Your task to perform on an android device: Open CNN.com Image 0: 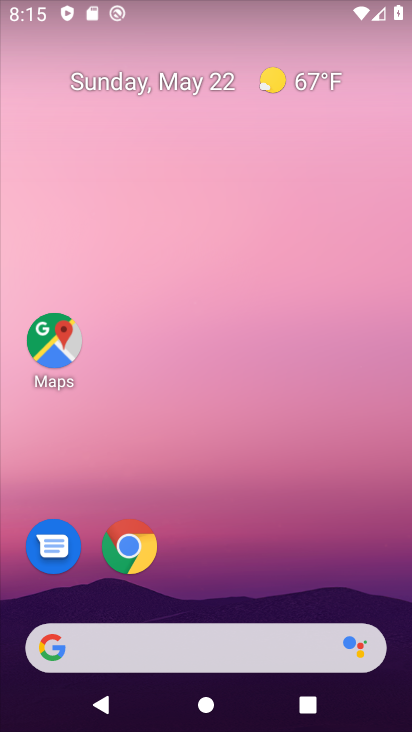
Step 0: click (136, 545)
Your task to perform on an android device: Open CNN.com Image 1: 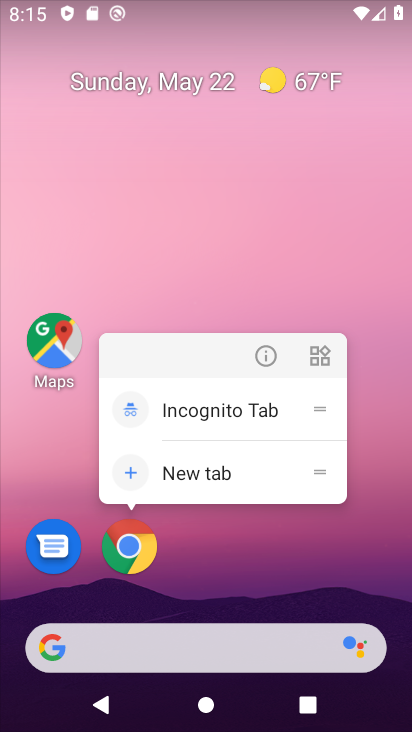
Step 1: click (137, 545)
Your task to perform on an android device: Open CNN.com Image 2: 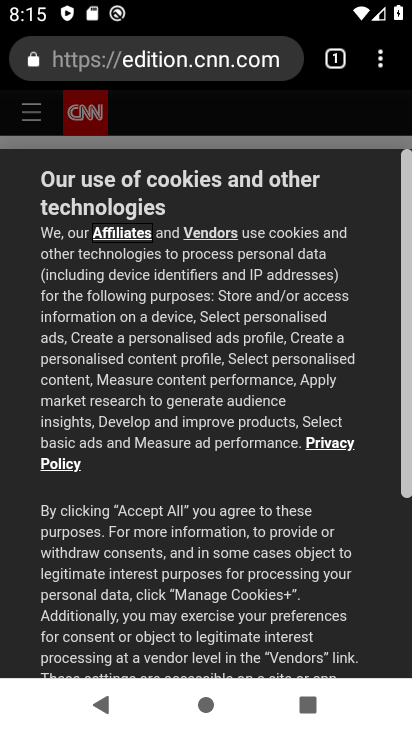
Step 2: click (139, 55)
Your task to perform on an android device: Open CNN.com Image 3: 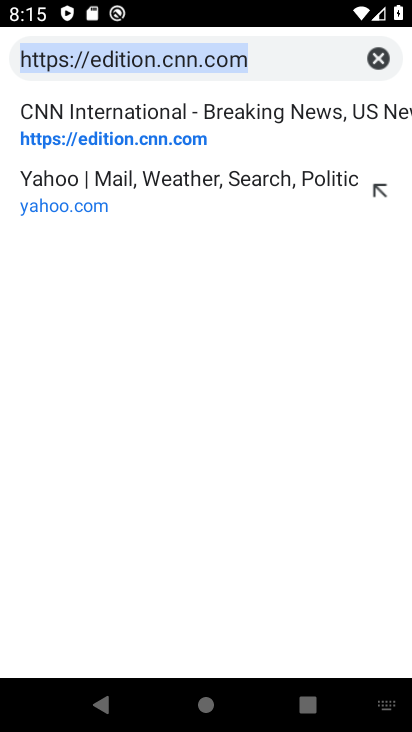
Step 3: type "CNN.com"
Your task to perform on an android device: Open CNN.com Image 4: 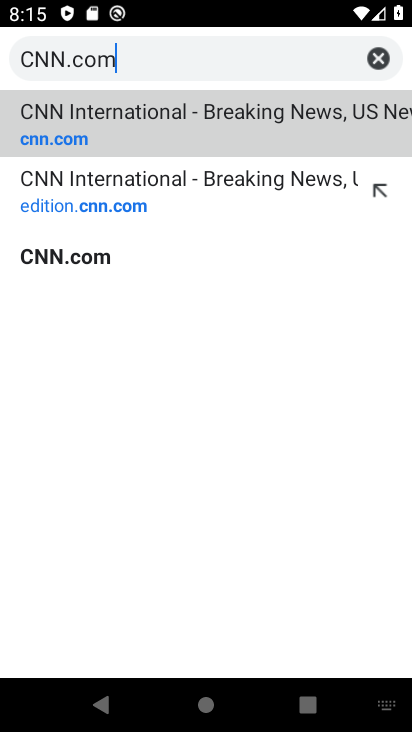
Step 4: click (82, 253)
Your task to perform on an android device: Open CNN.com Image 5: 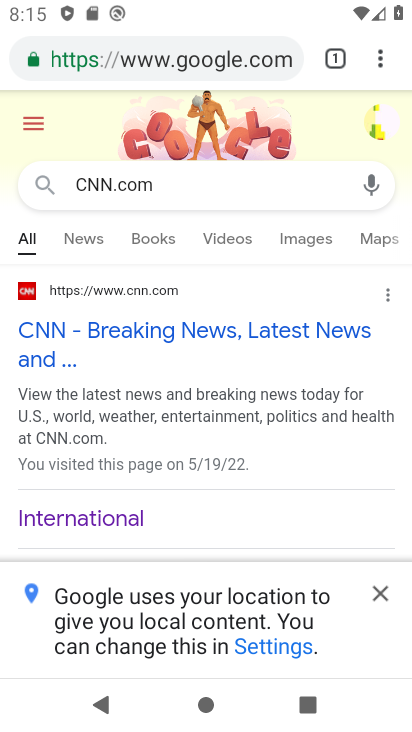
Step 5: task complete